Your task to perform on an android device: see creations saved in the google photos Image 0: 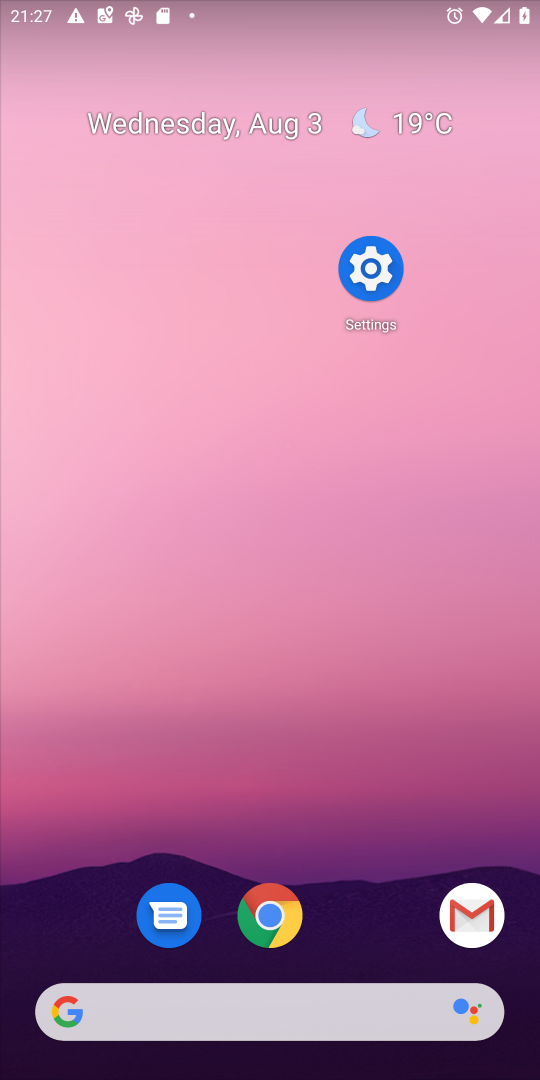
Step 0: press home button
Your task to perform on an android device: see creations saved in the google photos Image 1: 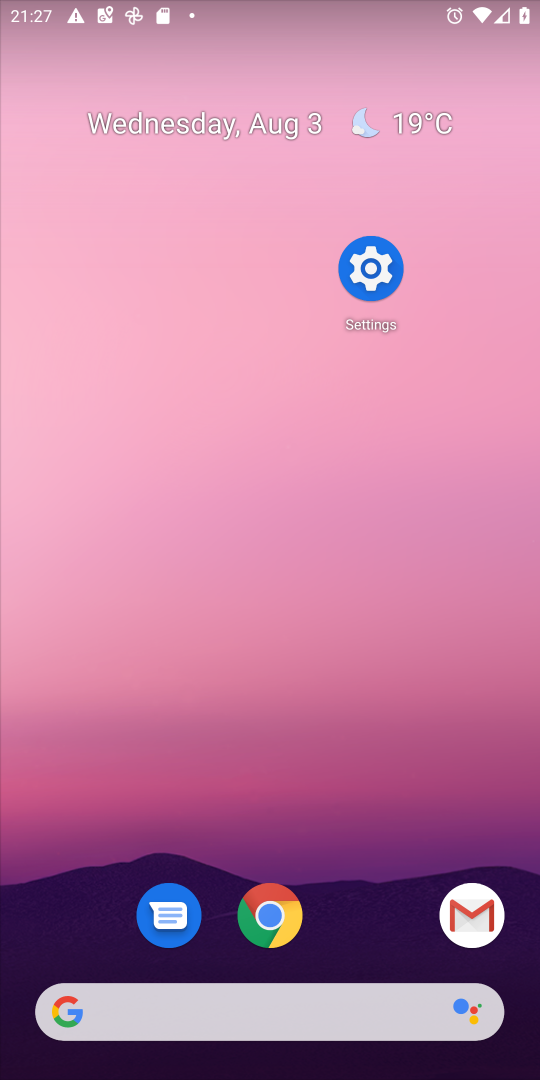
Step 1: drag from (402, 1058) to (244, 344)
Your task to perform on an android device: see creations saved in the google photos Image 2: 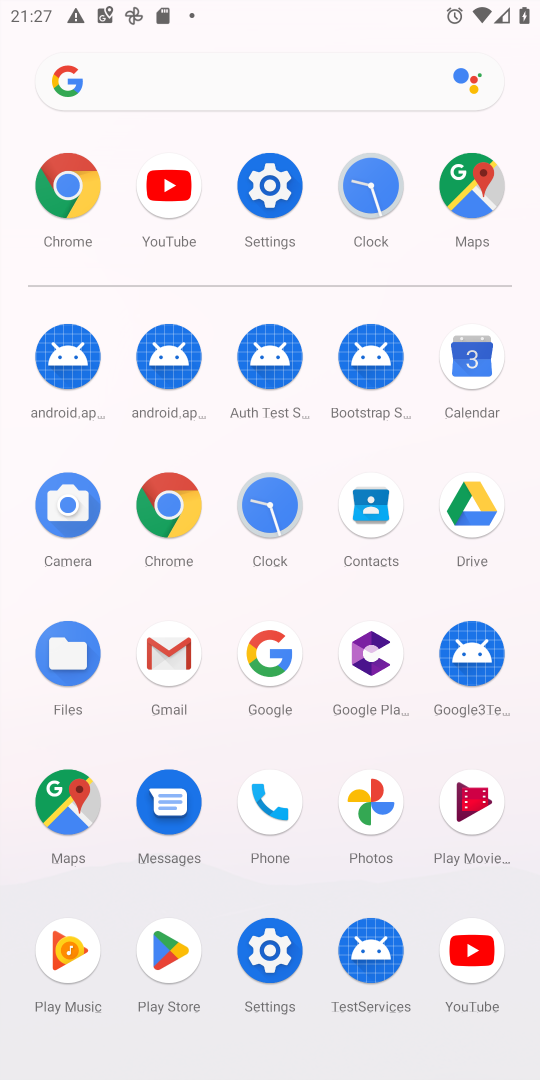
Step 2: click (346, 807)
Your task to perform on an android device: see creations saved in the google photos Image 3: 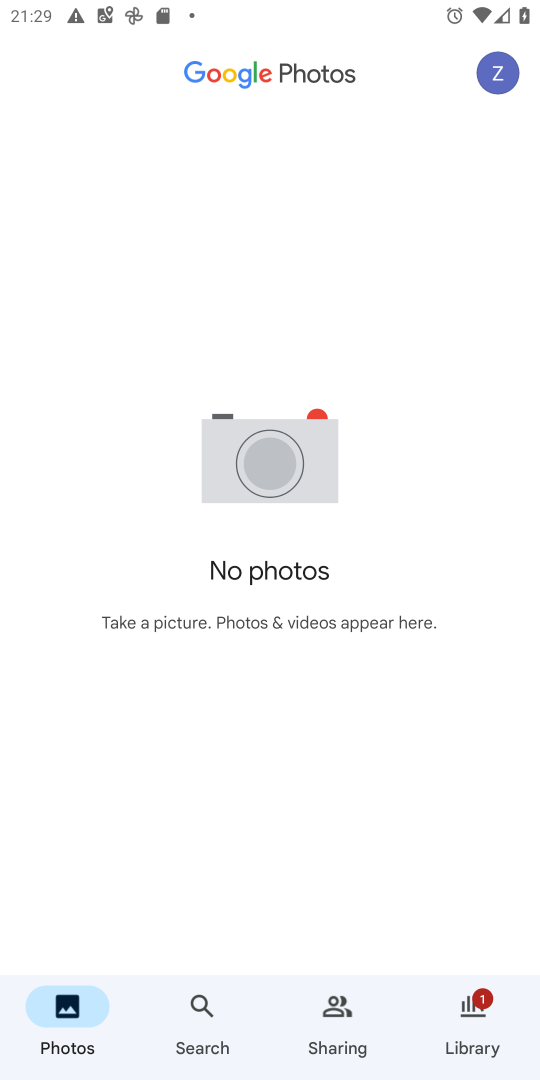
Step 3: task complete